Your task to perform on an android device: check the backup settings in the google photos Image 0: 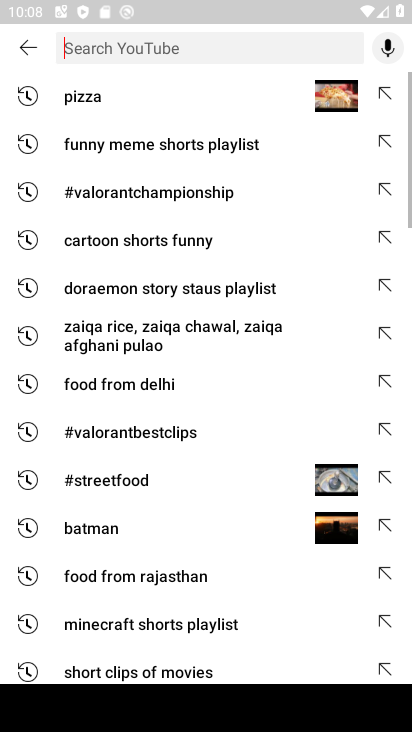
Step 0: press home button
Your task to perform on an android device: check the backup settings in the google photos Image 1: 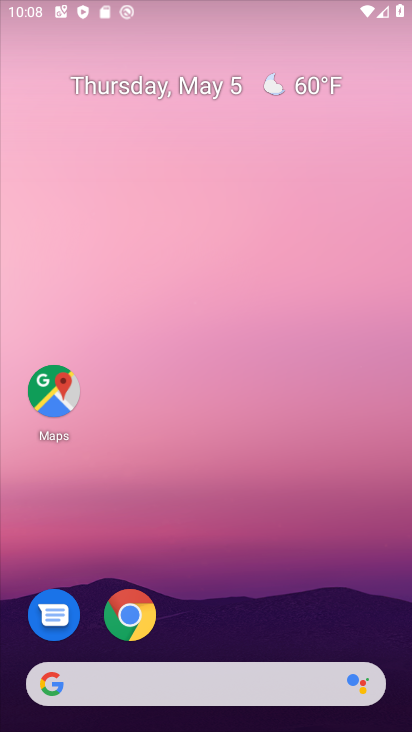
Step 1: drag from (258, 596) to (324, 58)
Your task to perform on an android device: check the backup settings in the google photos Image 2: 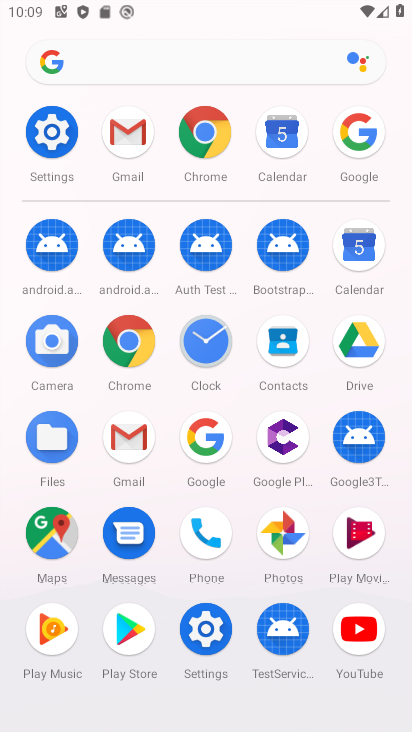
Step 2: click (289, 530)
Your task to perform on an android device: check the backup settings in the google photos Image 3: 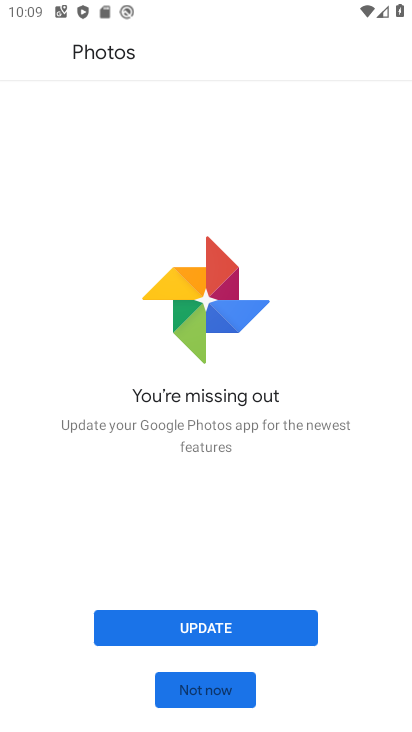
Step 3: click (209, 628)
Your task to perform on an android device: check the backup settings in the google photos Image 4: 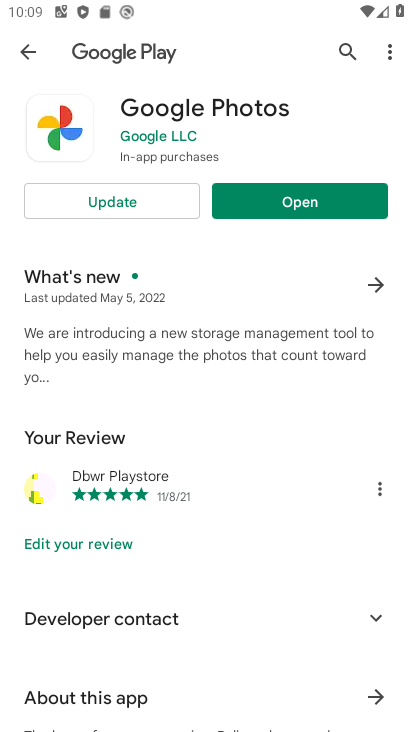
Step 4: click (315, 203)
Your task to perform on an android device: check the backup settings in the google photos Image 5: 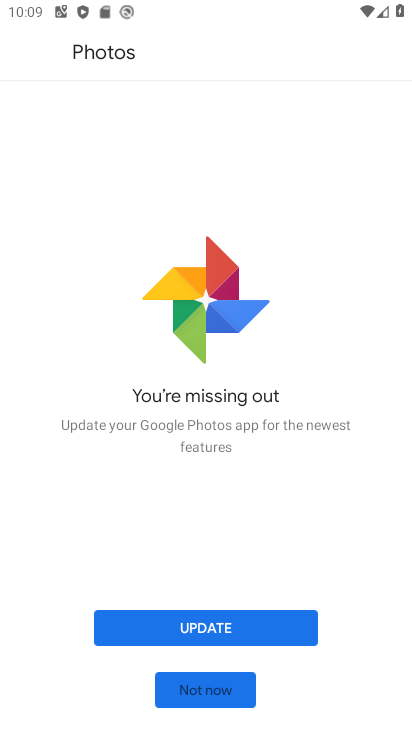
Step 5: click (209, 633)
Your task to perform on an android device: check the backup settings in the google photos Image 6: 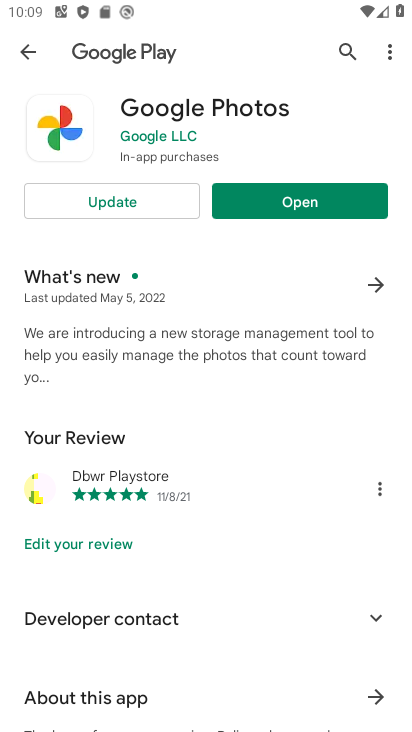
Step 6: click (119, 205)
Your task to perform on an android device: check the backup settings in the google photos Image 7: 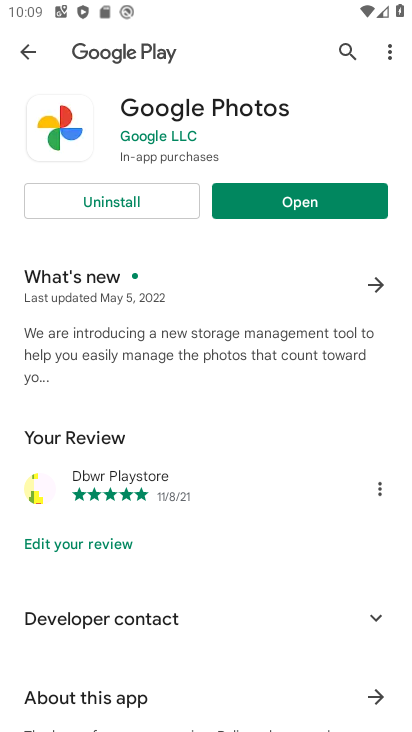
Step 7: click (316, 195)
Your task to perform on an android device: check the backup settings in the google photos Image 8: 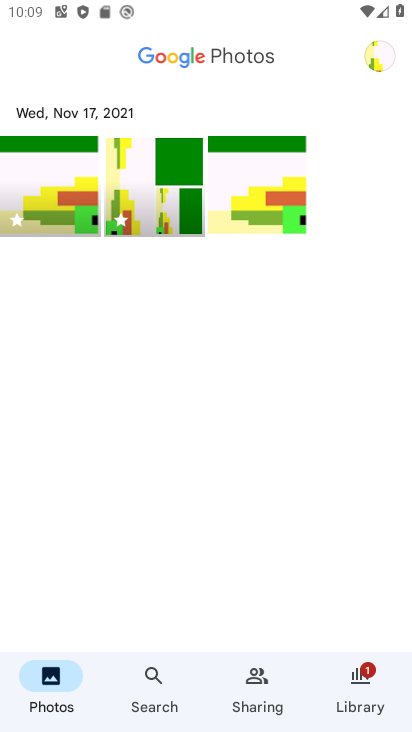
Step 8: click (377, 55)
Your task to perform on an android device: check the backup settings in the google photos Image 9: 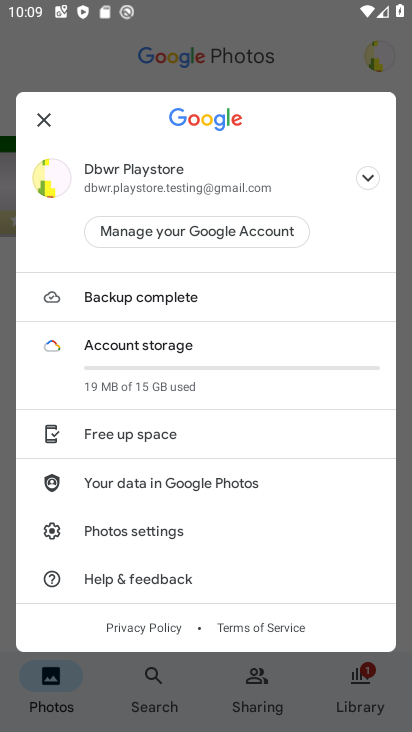
Step 9: click (372, 60)
Your task to perform on an android device: check the backup settings in the google photos Image 10: 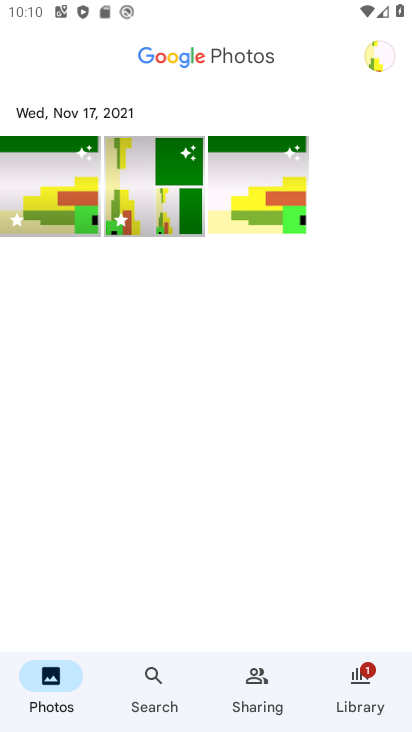
Step 10: click (373, 60)
Your task to perform on an android device: check the backup settings in the google photos Image 11: 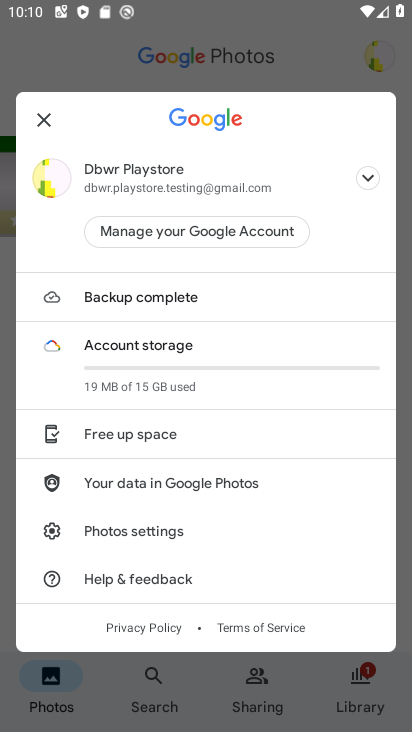
Step 11: click (143, 525)
Your task to perform on an android device: check the backup settings in the google photos Image 12: 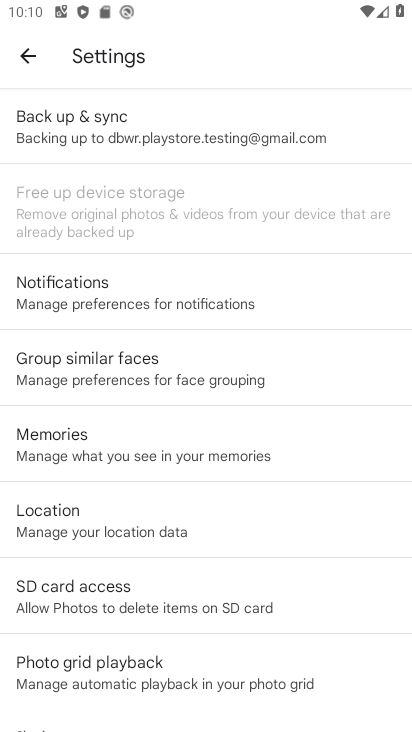
Step 12: click (108, 131)
Your task to perform on an android device: check the backup settings in the google photos Image 13: 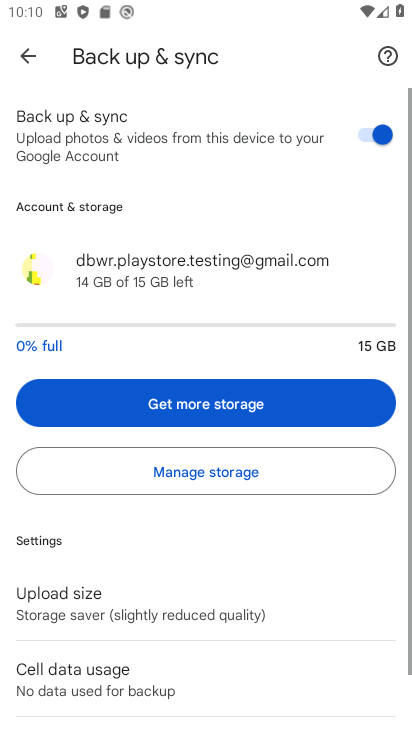
Step 13: task complete